Your task to perform on an android device: clear all cookies in the chrome app Image 0: 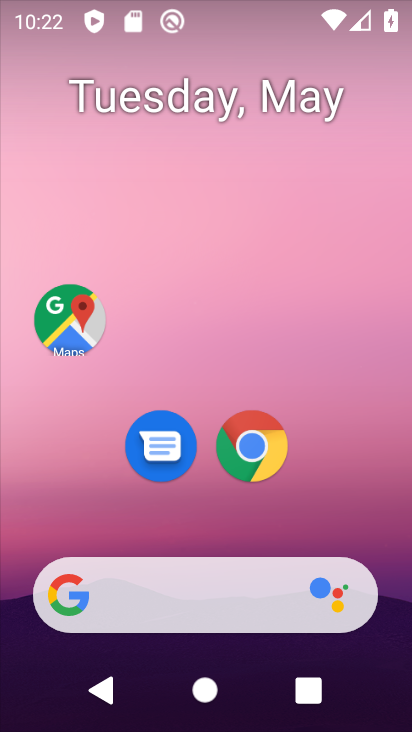
Step 0: click (265, 429)
Your task to perform on an android device: clear all cookies in the chrome app Image 1: 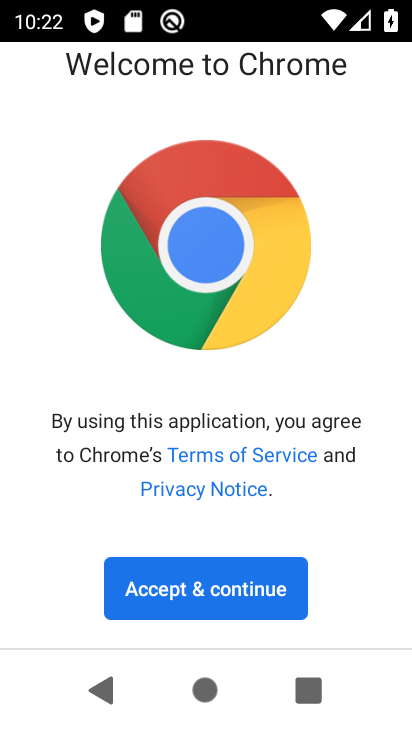
Step 1: click (163, 581)
Your task to perform on an android device: clear all cookies in the chrome app Image 2: 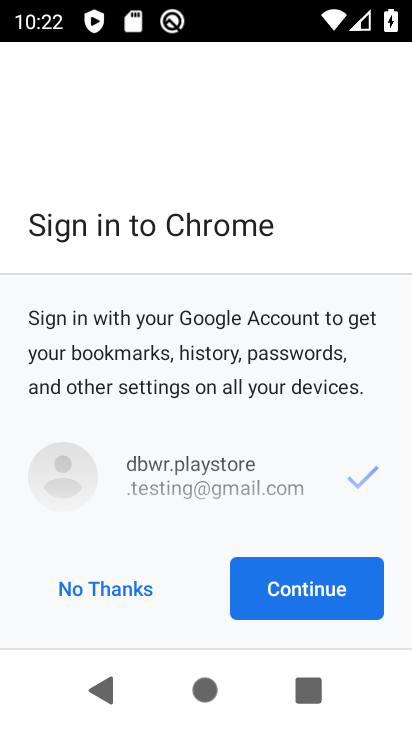
Step 2: click (247, 605)
Your task to perform on an android device: clear all cookies in the chrome app Image 3: 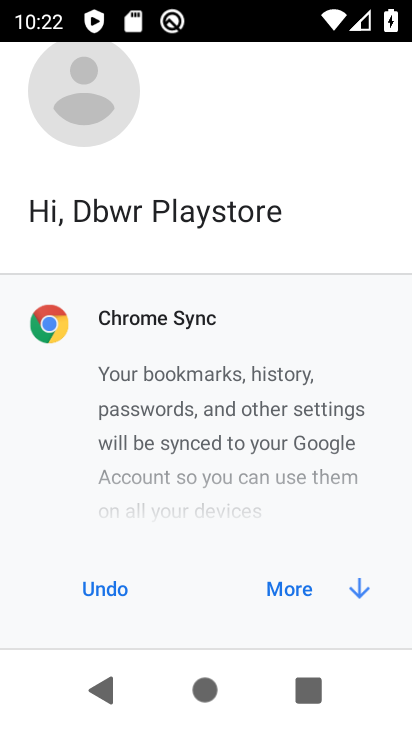
Step 3: click (325, 569)
Your task to perform on an android device: clear all cookies in the chrome app Image 4: 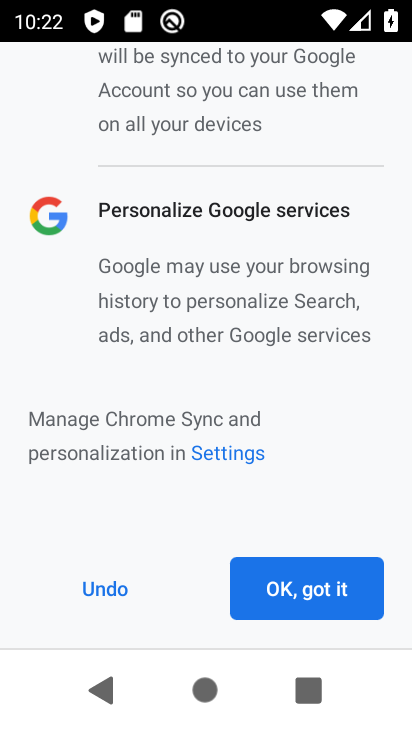
Step 4: click (251, 593)
Your task to perform on an android device: clear all cookies in the chrome app Image 5: 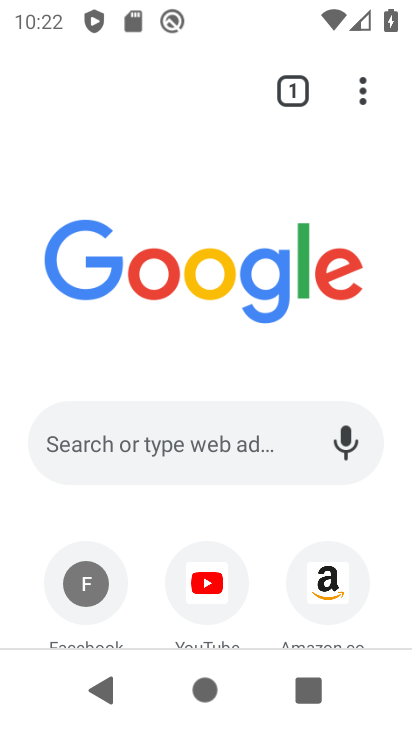
Step 5: task complete